Your task to perform on an android device: toggle location history Image 0: 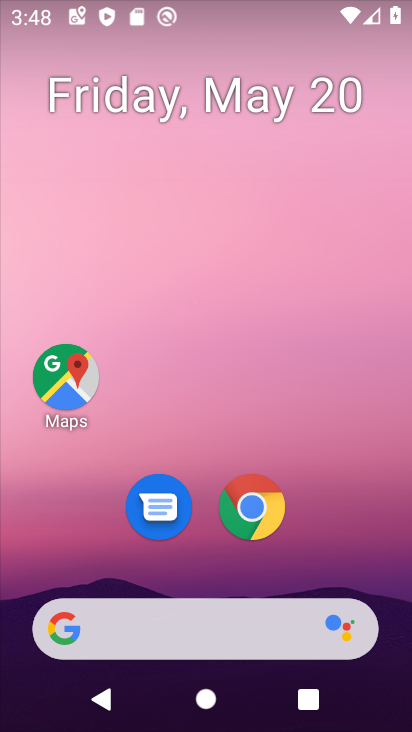
Step 0: drag from (330, 558) to (163, 31)
Your task to perform on an android device: toggle location history Image 1: 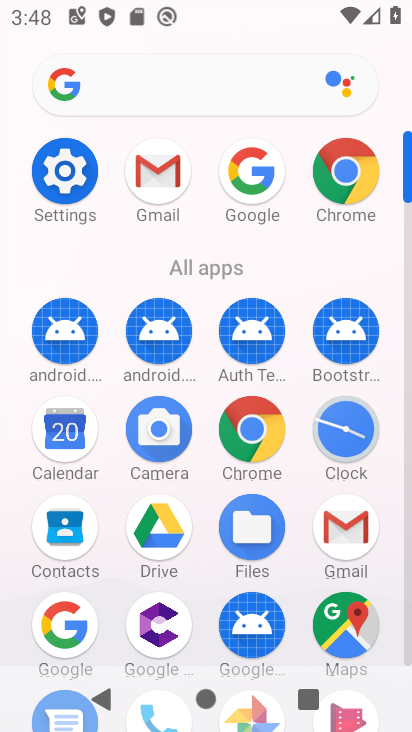
Step 1: click (65, 168)
Your task to perform on an android device: toggle location history Image 2: 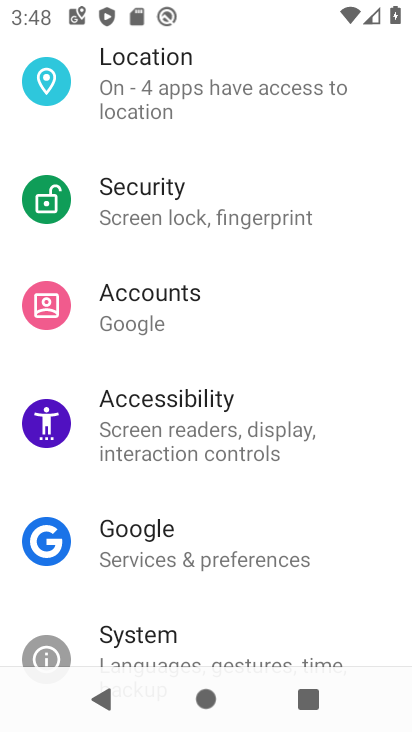
Step 2: drag from (134, 130) to (213, 444)
Your task to perform on an android device: toggle location history Image 3: 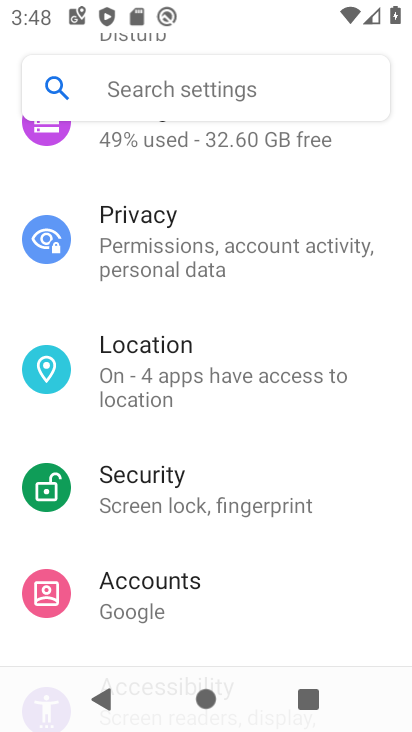
Step 3: click (156, 351)
Your task to perform on an android device: toggle location history Image 4: 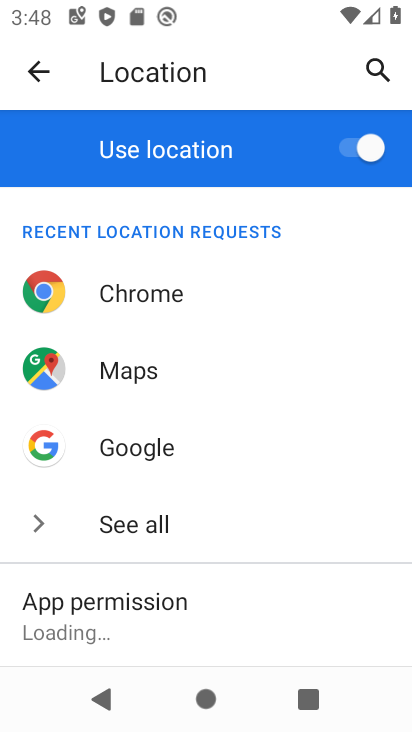
Step 4: drag from (182, 563) to (179, 377)
Your task to perform on an android device: toggle location history Image 5: 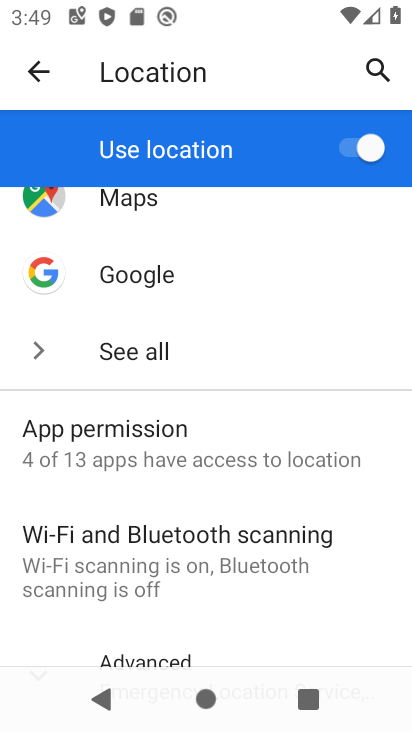
Step 5: drag from (164, 631) to (174, 418)
Your task to perform on an android device: toggle location history Image 6: 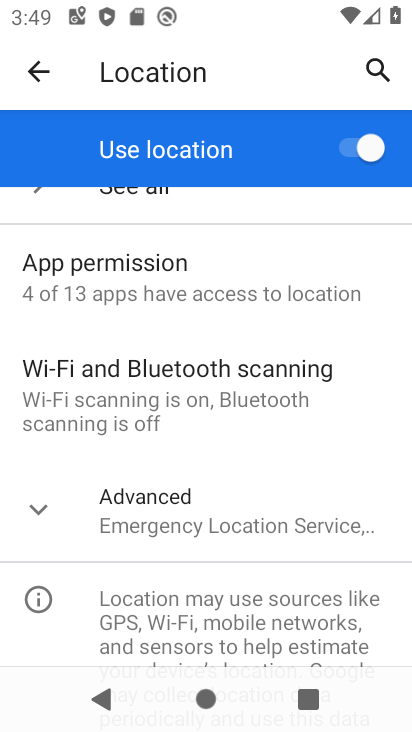
Step 6: click (166, 531)
Your task to perform on an android device: toggle location history Image 7: 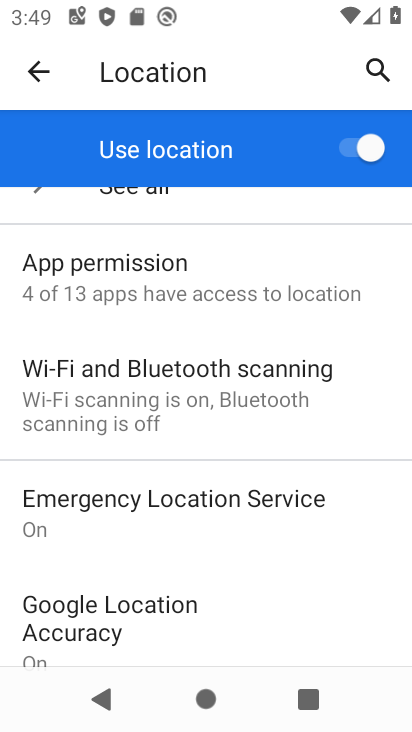
Step 7: drag from (160, 543) to (213, 414)
Your task to perform on an android device: toggle location history Image 8: 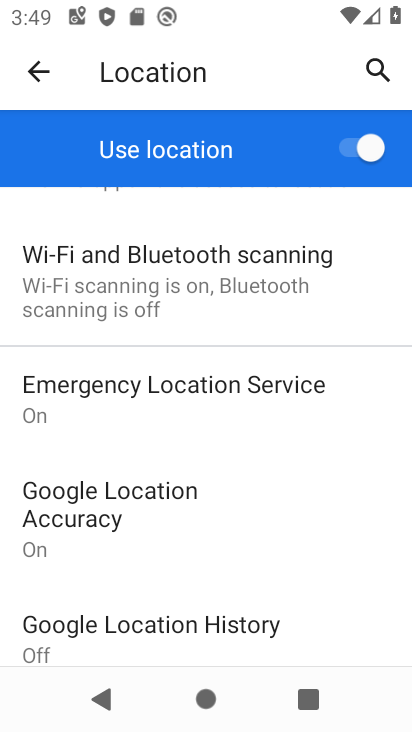
Step 8: drag from (128, 566) to (154, 467)
Your task to perform on an android device: toggle location history Image 9: 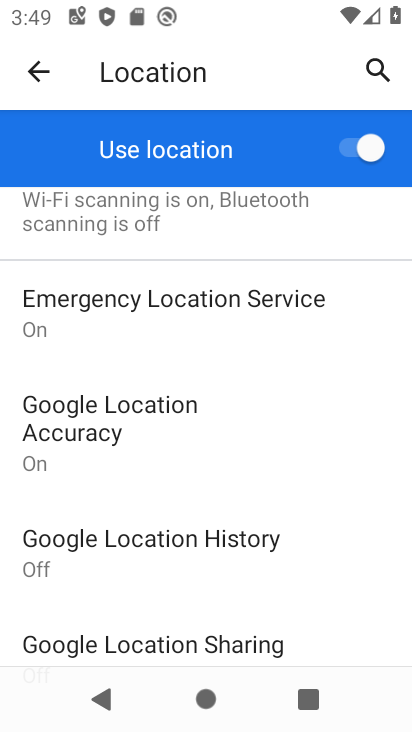
Step 9: click (146, 539)
Your task to perform on an android device: toggle location history Image 10: 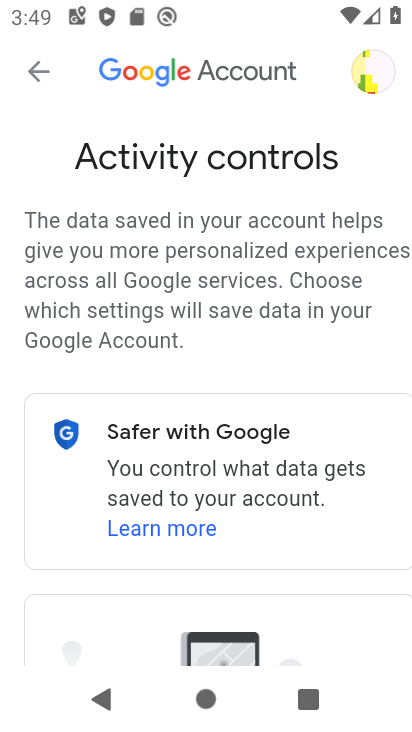
Step 10: drag from (124, 601) to (169, 498)
Your task to perform on an android device: toggle location history Image 11: 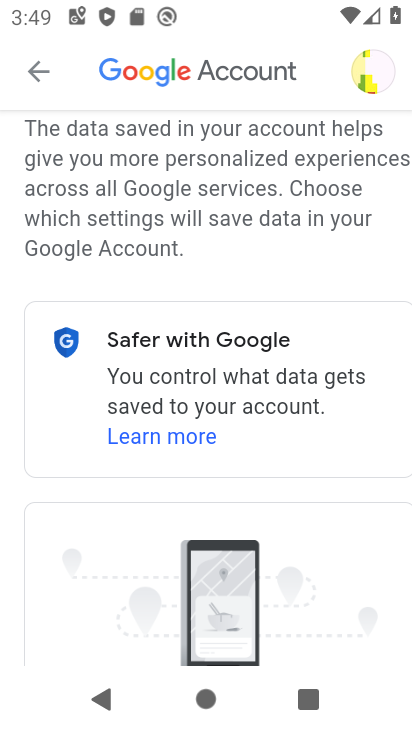
Step 11: drag from (105, 623) to (134, 493)
Your task to perform on an android device: toggle location history Image 12: 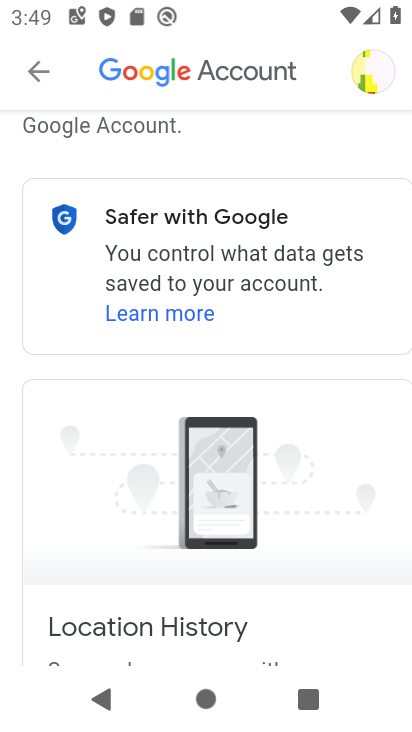
Step 12: drag from (117, 602) to (124, 403)
Your task to perform on an android device: toggle location history Image 13: 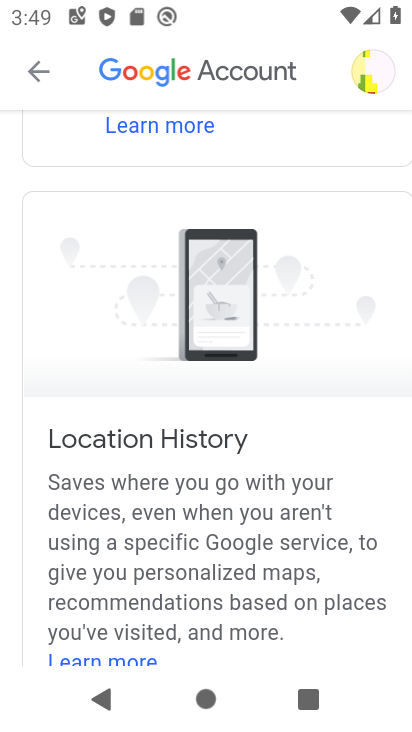
Step 13: drag from (137, 558) to (123, 410)
Your task to perform on an android device: toggle location history Image 14: 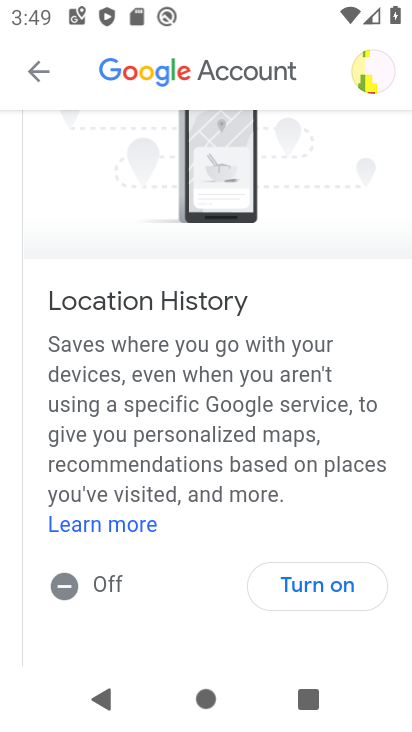
Step 14: click (310, 587)
Your task to perform on an android device: toggle location history Image 15: 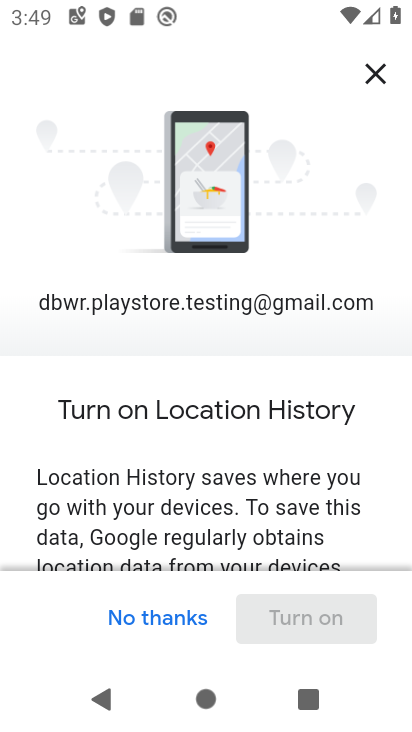
Step 15: drag from (214, 542) to (257, 392)
Your task to perform on an android device: toggle location history Image 16: 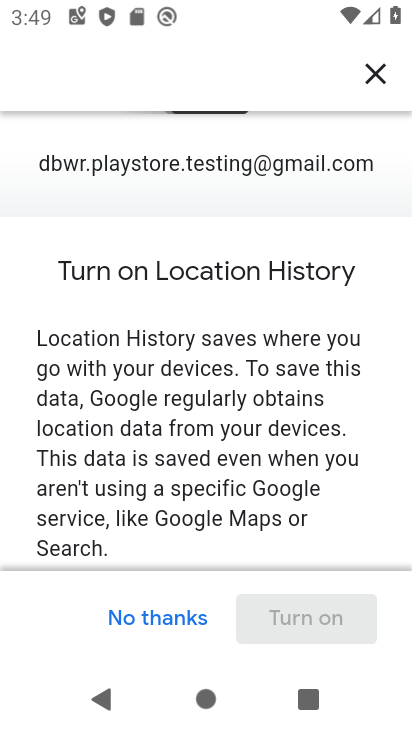
Step 16: drag from (243, 499) to (244, 331)
Your task to perform on an android device: toggle location history Image 17: 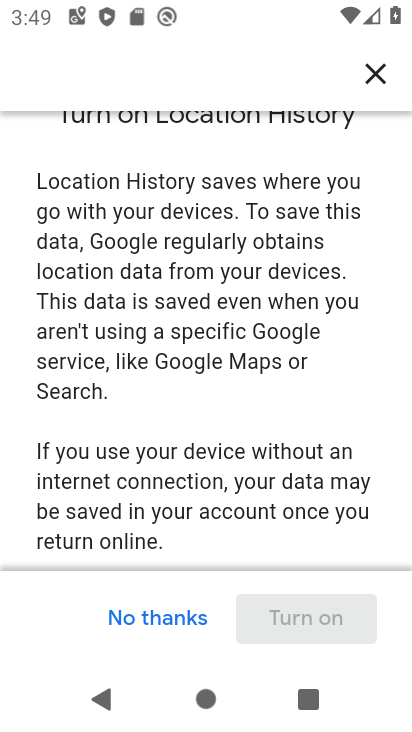
Step 17: drag from (242, 490) to (241, 323)
Your task to perform on an android device: toggle location history Image 18: 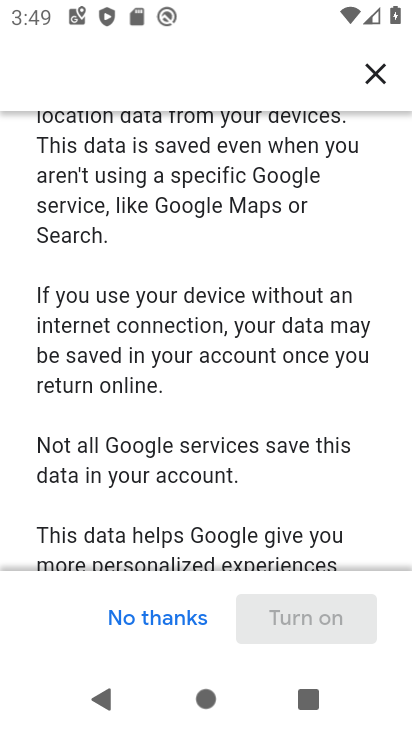
Step 18: drag from (248, 472) to (230, 276)
Your task to perform on an android device: toggle location history Image 19: 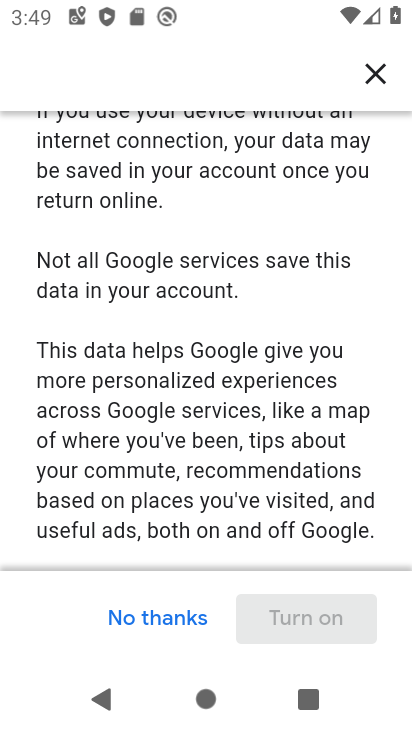
Step 19: drag from (263, 505) to (253, 279)
Your task to perform on an android device: toggle location history Image 20: 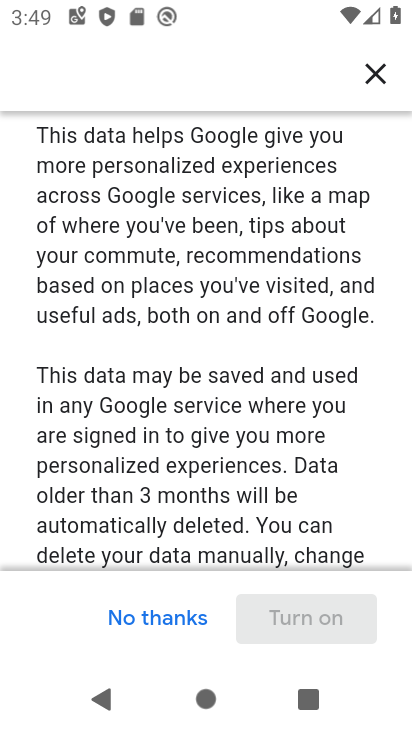
Step 20: drag from (281, 526) to (243, 325)
Your task to perform on an android device: toggle location history Image 21: 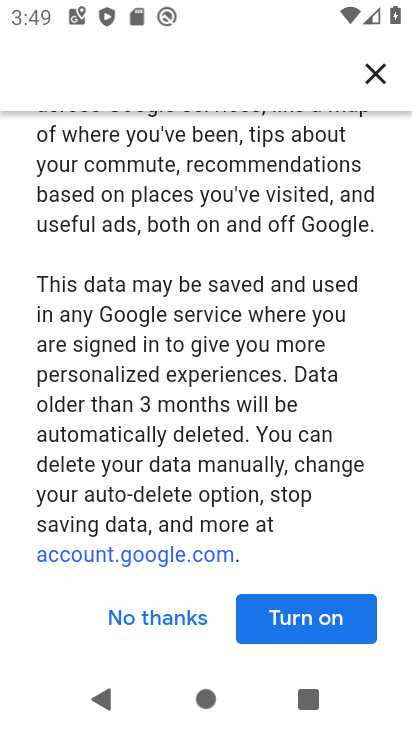
Step 21: click (300, 619)
Your task to perform on an android device: toggle location history Image 22: 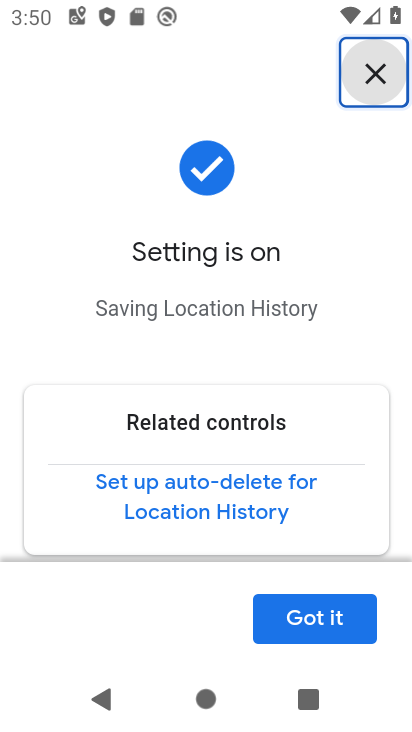
Step 22: click (300, 619)
Your task to perform on an android device: toggle location history Image 23: 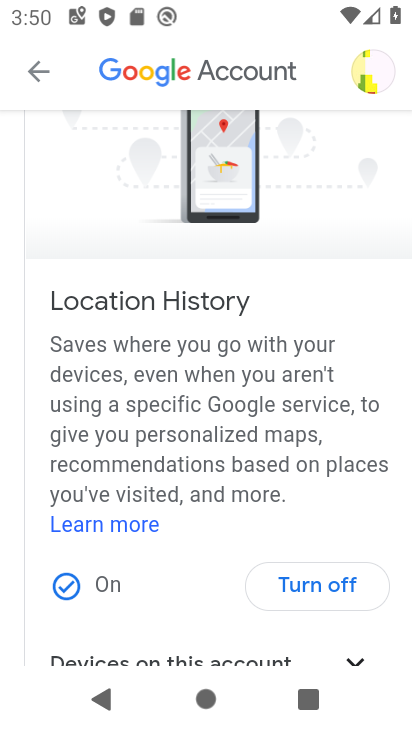
Step 23: task complete